Your task to perform on an android device: turn on location history Image 0: 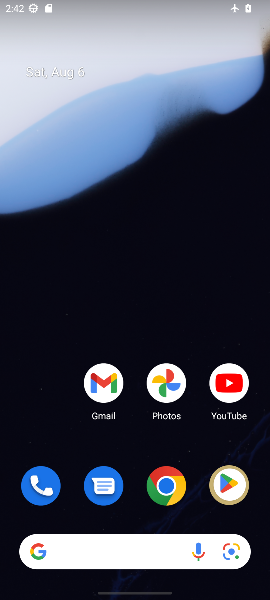
Step 0: press home button
Your task to perform on an android device: turn on location history Image 1: 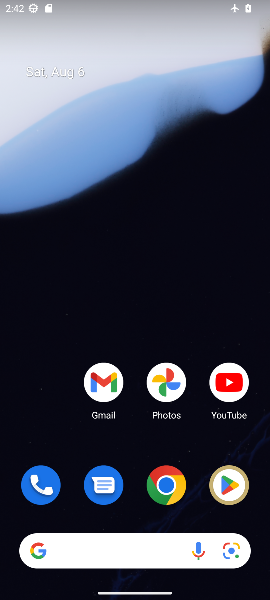
Step 1: drag from (132, 461) to (139, 0)
Your task to perform on an android device: turn on location history Image 2: 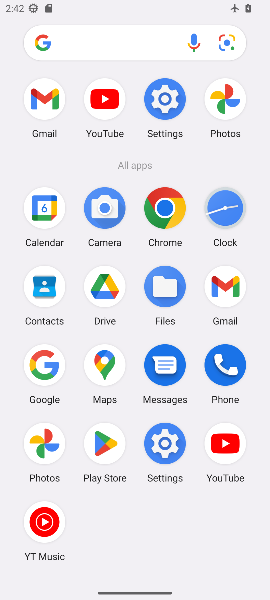
Step 2: click (161, 94)
Your task to perform on an android device: turn on location history Image 3: 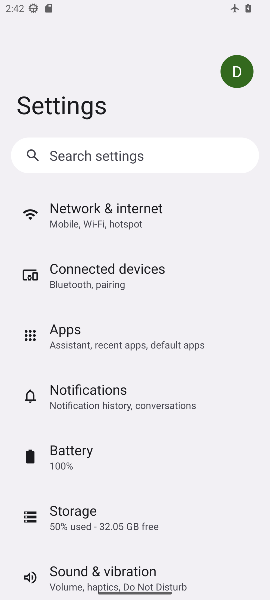
Step 3: drag from (138, 490) to (137, 69)
Your task to perform on an android device: turn on location history Image 4: 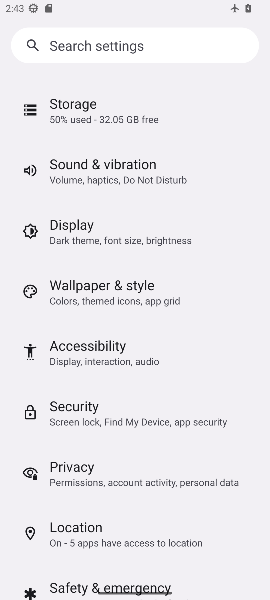
Step 4: click (127, 529)
Your task to perform on an android device: turn on location history Image 5: 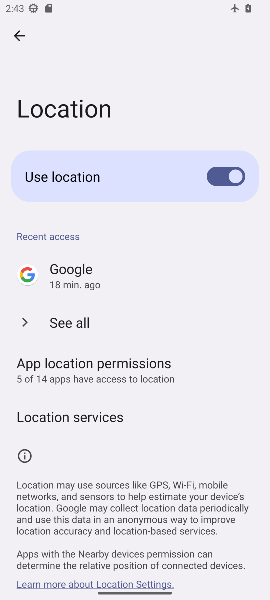
Step 5: click (133, 414)
Your task to perform on an android device: turn on location history Image 6: 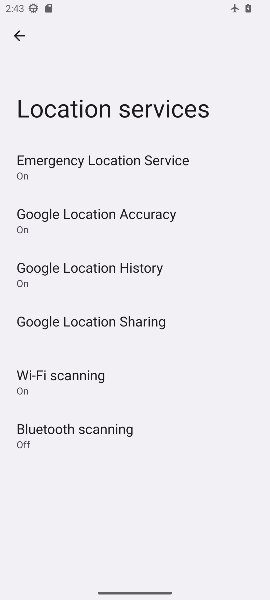
Step 6: click (58, 275)
Your task to perform on an android device: turn on location history Image 7: 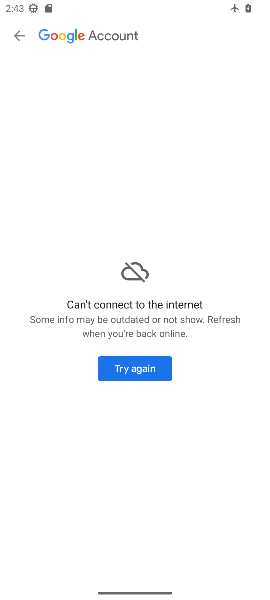
Step 7: task complete